Your task to perform on an android device: open a new tab in the chrome app Image 0: 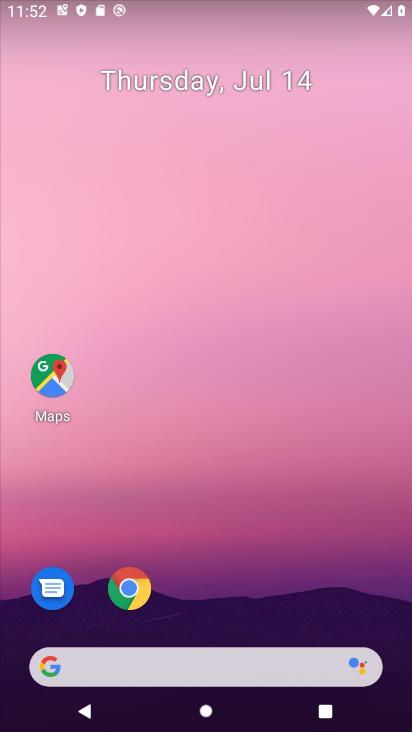
Step 0: click (119, 583)
Your task to perform on an android device: open a new tab in the chrome app Image 1: 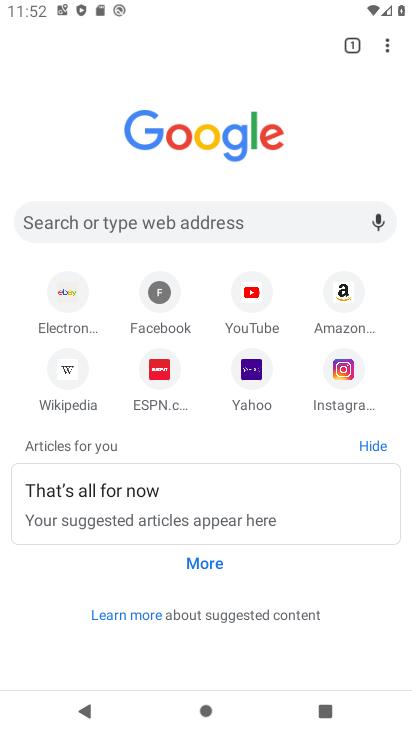
Step 1: task complete